Your task to perform on an android device: check google app version Image 0: 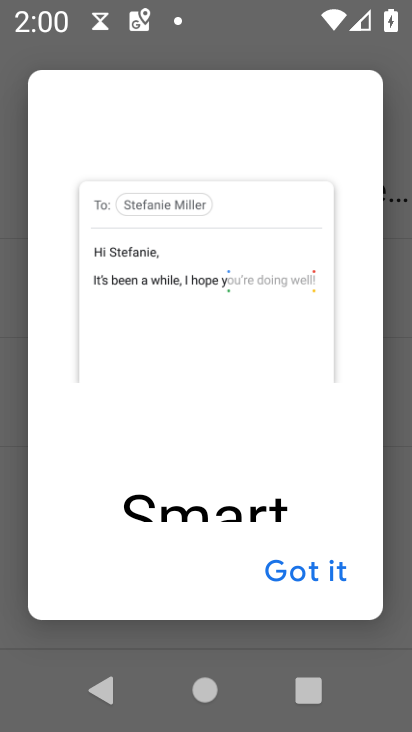
Step 0: click (321, 572)
Your task to perform on an android device: check google app version Image 1: 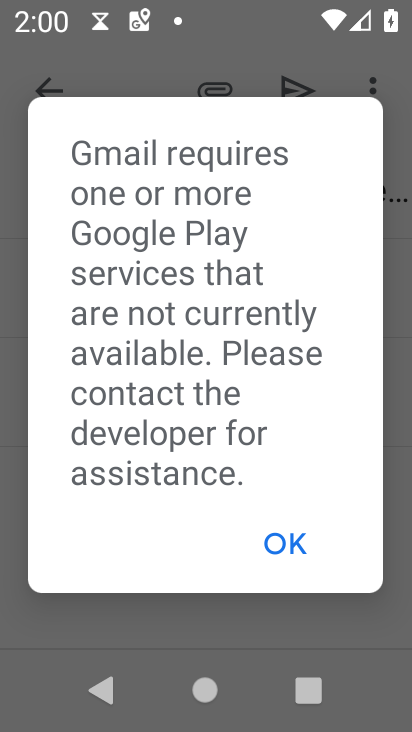
Step 1: click (301, 541)
Your task to perform on an android device: check google app version Image 2: 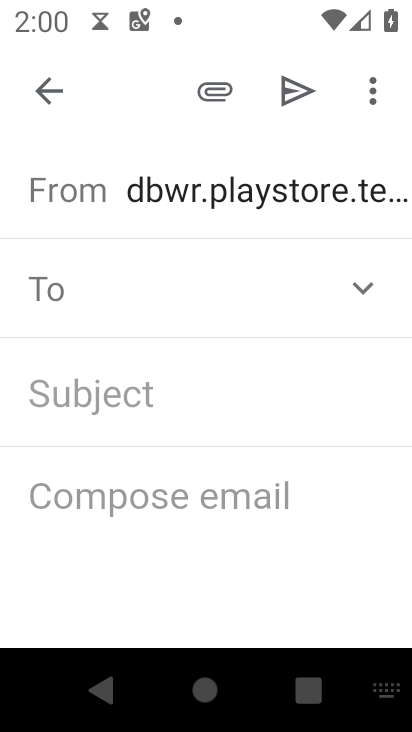
Step 2: press home button
Your task to perform on an android device: check google app version Image 3: 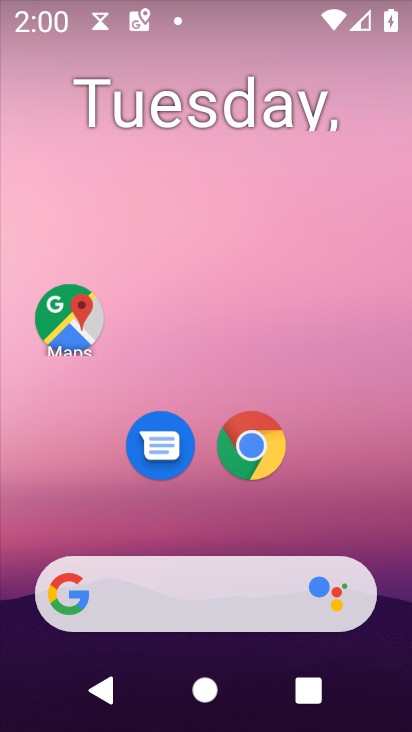
Step 3: drag from (288, 580) to (355, 5)
Your task to perform on an android device: check google app version Image 4: 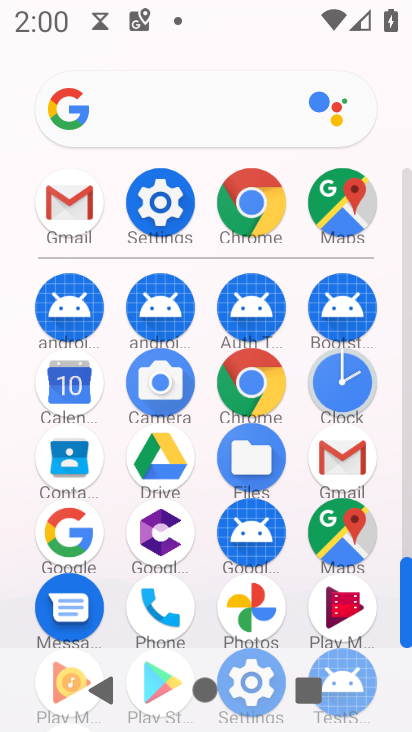
Step 4: drag from (293, 619) to (313, 343)
Your task to perform on an android device: check google app version Image 5: 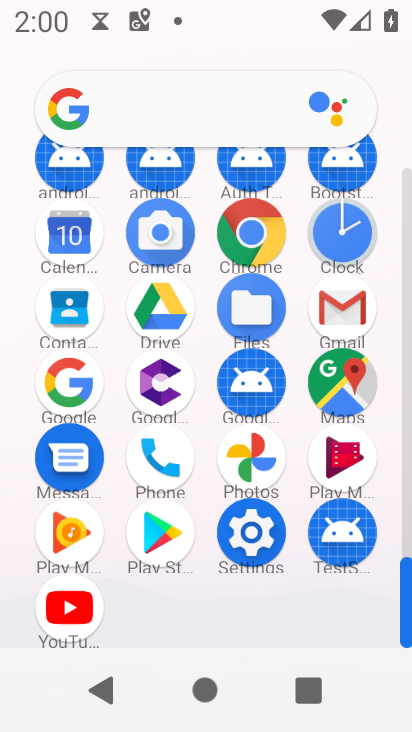
Step 5: click (262, 233)
Your task to perform on an android device: check google app version Image 6: 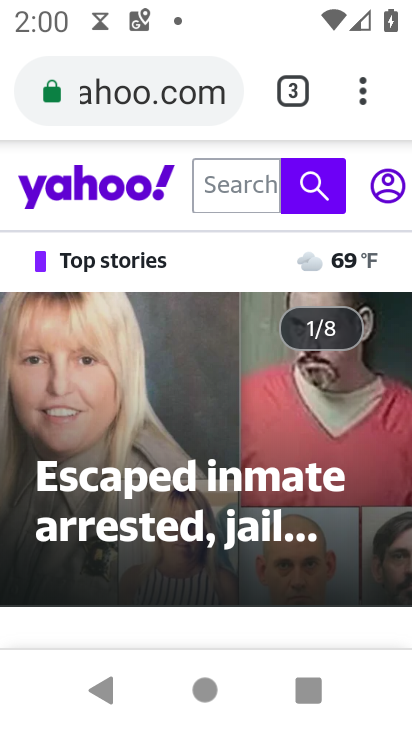
Step 6: drag from (358, 98) to (229, 474)
Your task to perform on an android device: check google app version Image 7: 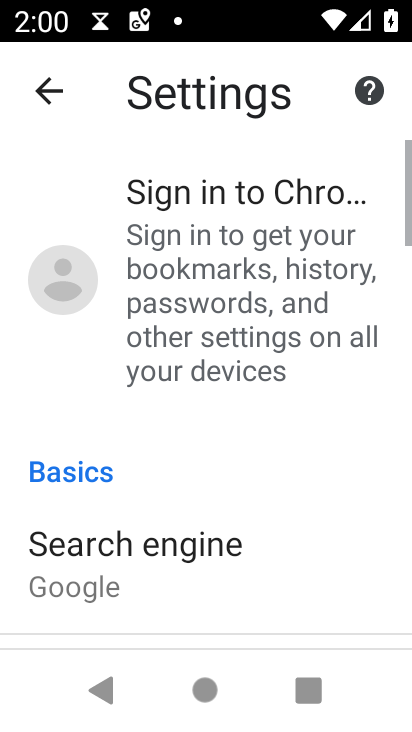
Step 7: drag from (279, 566) to (337, 70)
Your task to perform on an android device: check google app version Image 8: 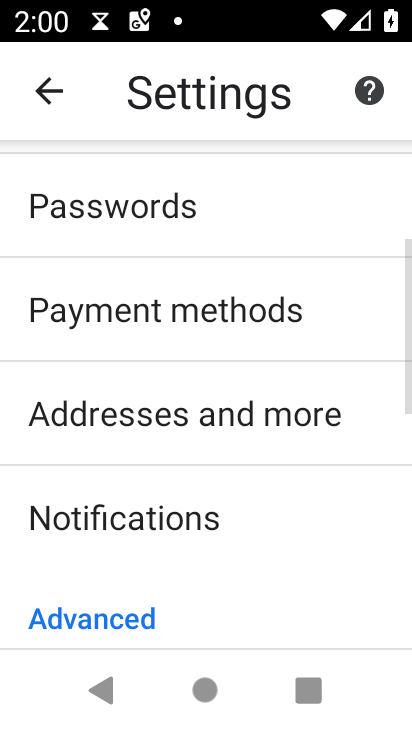
Step 8: drag from (302, 608) to (298, 154)
Your task to perform on an android device: check google app version Image 9: 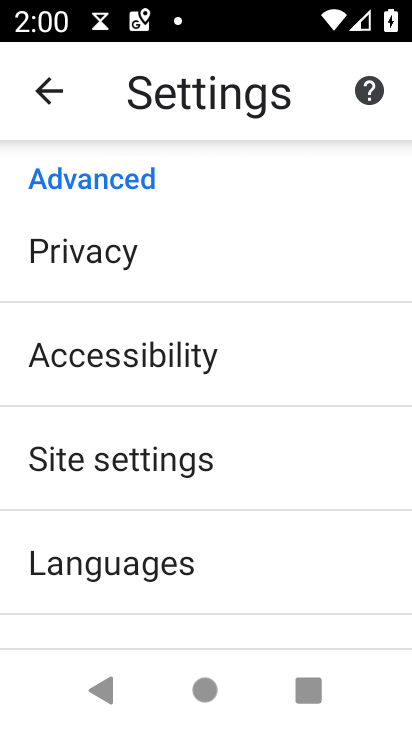
Step 9: press back button
Your task to perform on an android device: check google app version Image 10: 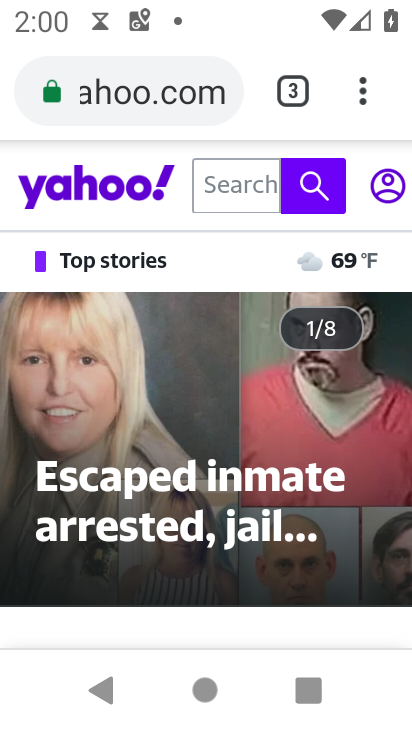
Step 10: drag from (370, 89) to (242, 570)
Your task to perform on an android device: check google app version Image 11: 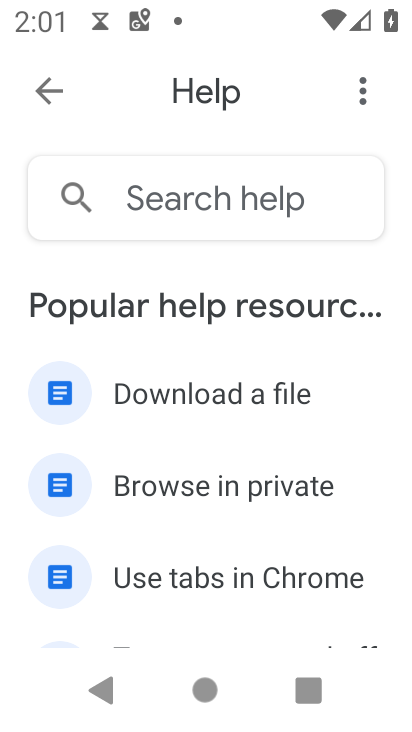
Step 11: click (367, 85)
Your task to perform on an android device: check google app version Image 12: 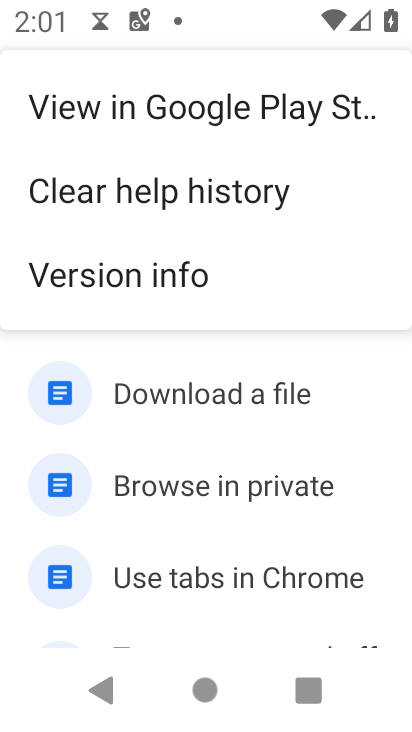
Step 12: click (263, 278)
Your task to perform on an android device: check google app version Image 13: 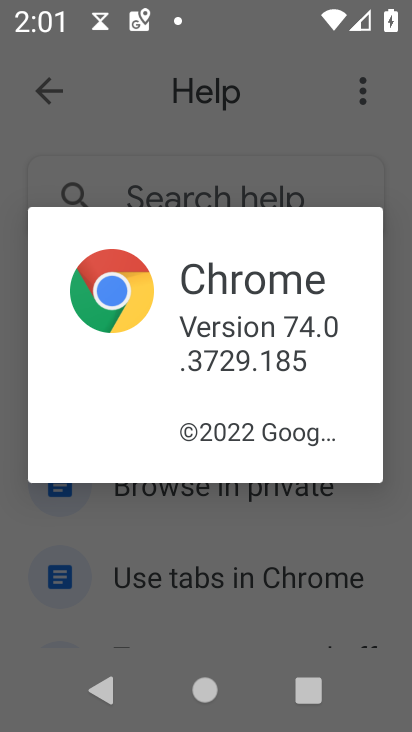
Step 13: task complete